Your task to perform on an android device: change the clock display to analog Image 0: 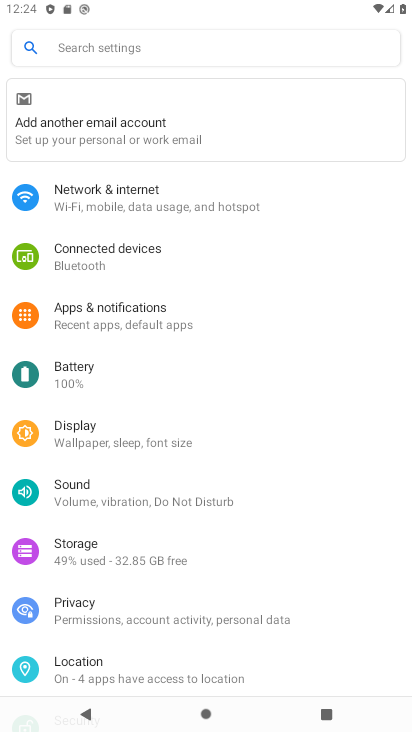
Step 0: press home button
Your task to perform on an android device: change the clock display to analog Image 1: 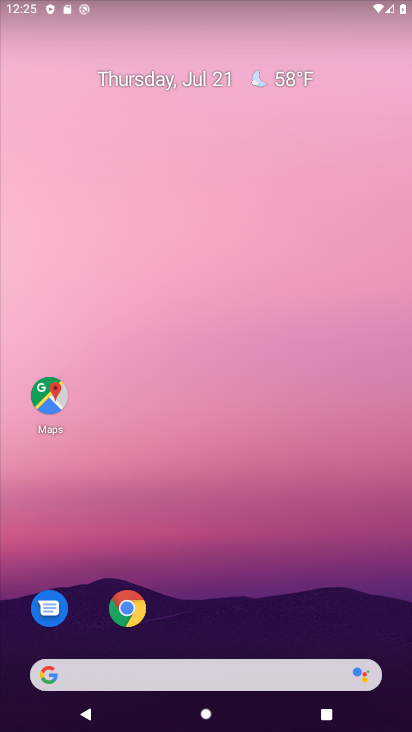
Step 1: drag from (234, 624) to (264, 119)
Your task to perform on an android device: change the clock display to analog Image 2: 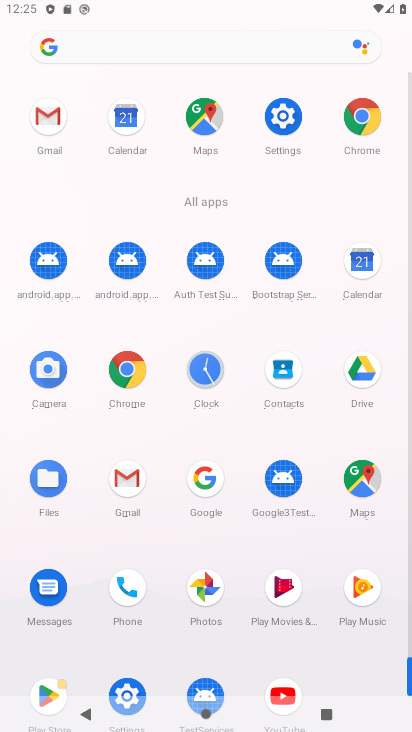
Step 2: click (208, 369)
Your task to perform on an android device: change the clock display to analog Image 3: 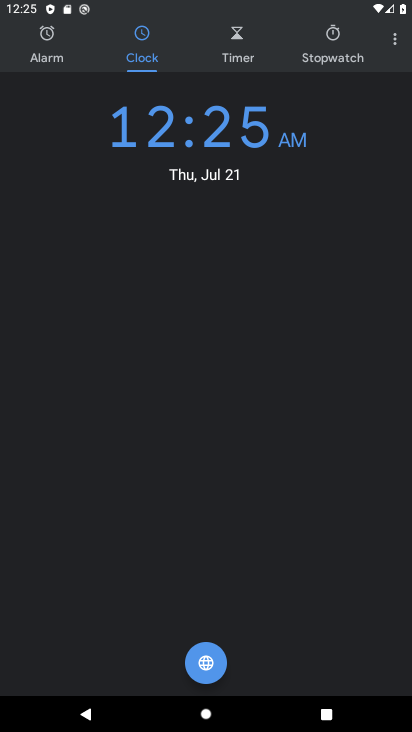
Step 3: click (396, 36)
Your task to perform on an android device: change the clock display to analog Image 4: 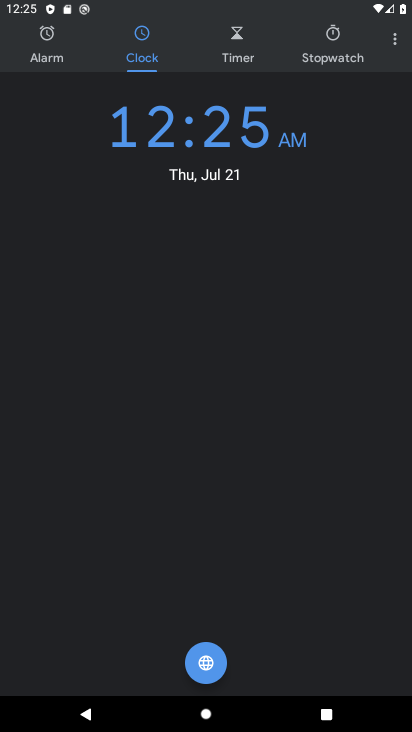
Step 4: click (398, 40)
Your task to perform on an android device: change the clock display to analog Image 5: 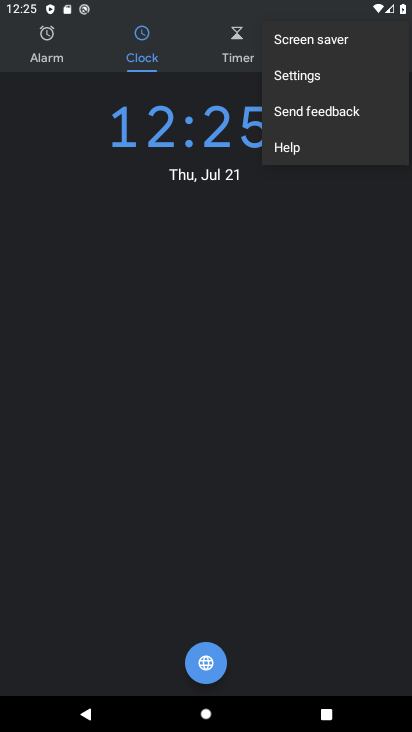
Step 5: click (313, 80)
Your task to perform on an android device: change the clock display to analog Image 6: 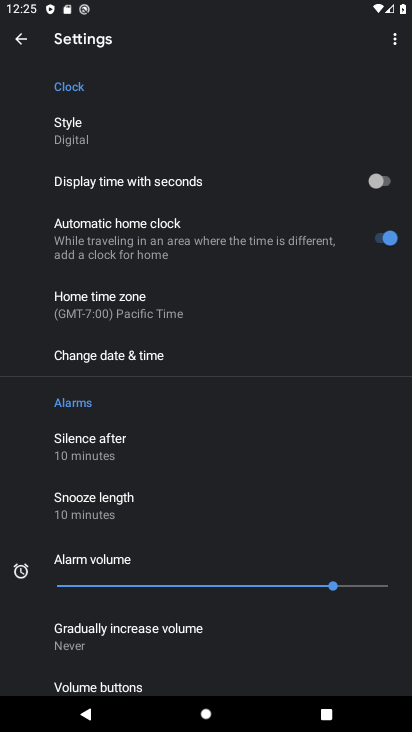
Step 6: click (91, 129)
Your task to perform on an android device: change the clock display to analog Image 7: 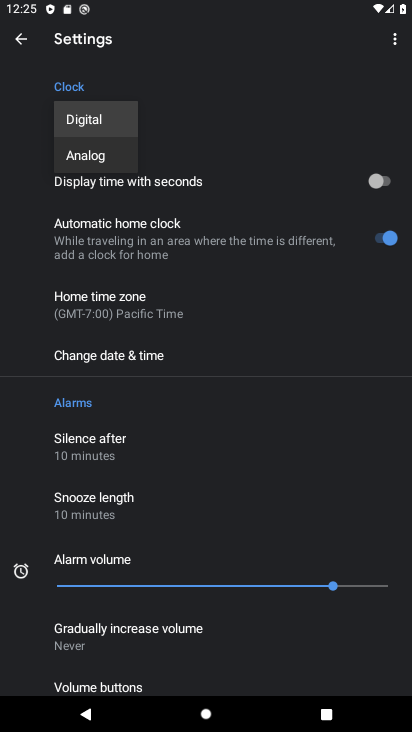
Step 7: click (121, 150)
Your task to perform on an android device: change the clock display to analog Image 8: 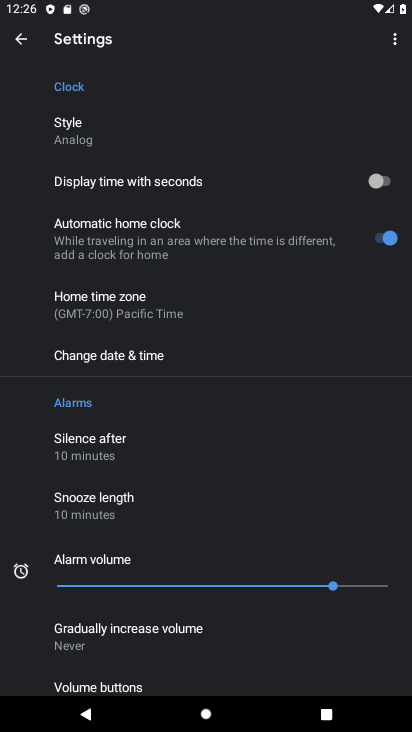
Step 8: task complete